Your task to perform on an android device: Search for vegetarian restaurants on Maps Image 0: 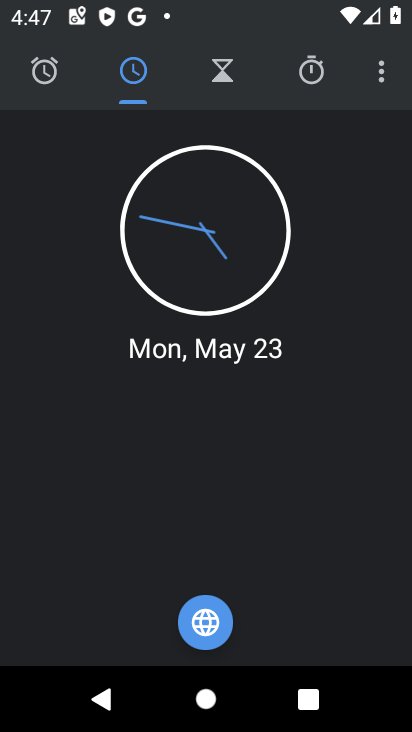
Step 0: press home button
Your task to perform on an android device: Search for vegetarian restaurants on Maps Image 1: 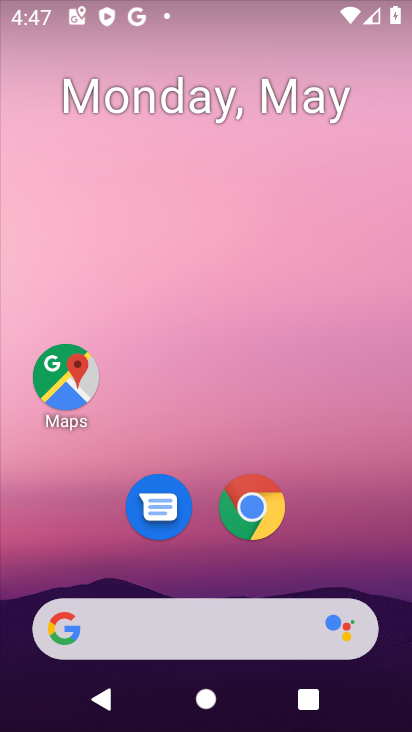
Step 1: drag from (350, 442) to (334, 31)
Your task to perform on an android device: Search for vegetarian restaurants on Maps Image 2: 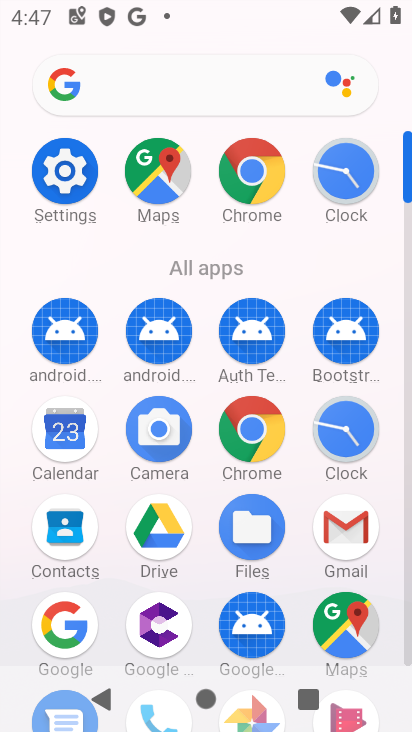
Step 2: click (167, 181)
Your task to perform on an android device: Search for vegetarian restaurants on Maps Image 3: 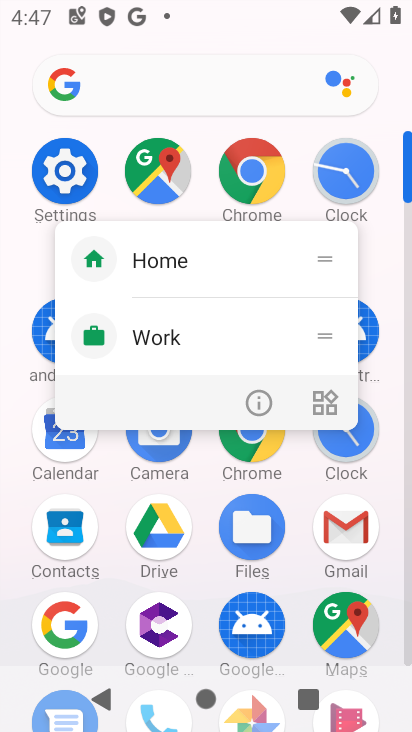
Step 3: click (167, 180)
Your task to perform on an android device: Search for vegetarian restaurants on Maps Image 4: 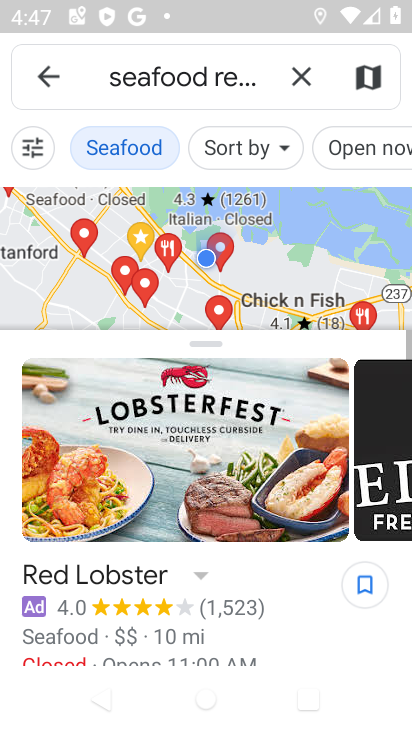
Step 4: click (299, 63)
Your task to perform on an android device: Search for vegetarian restaurants on Maps Image 5: 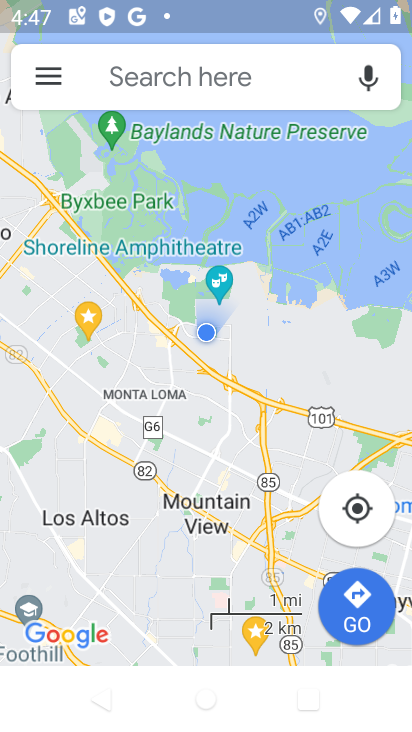
Step 5: click (222, 74)
Your task to perform on an android device: Search for vegetarian restaurants on Maps Image 6: 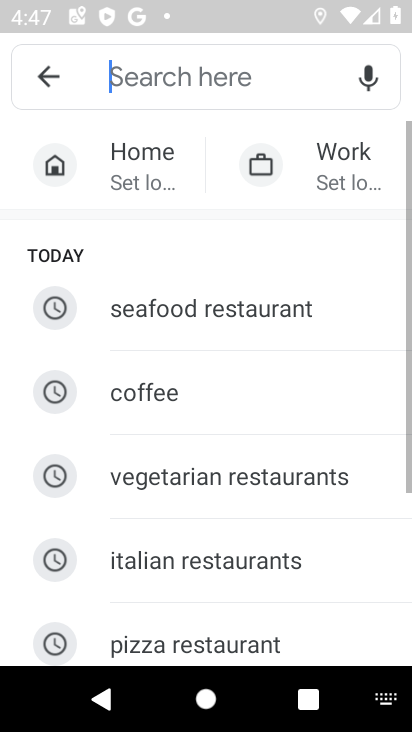
Step 6: click (247, 473)
Your task to perform on an android device: Search for vegetarian restaurants on Maps Image 7: 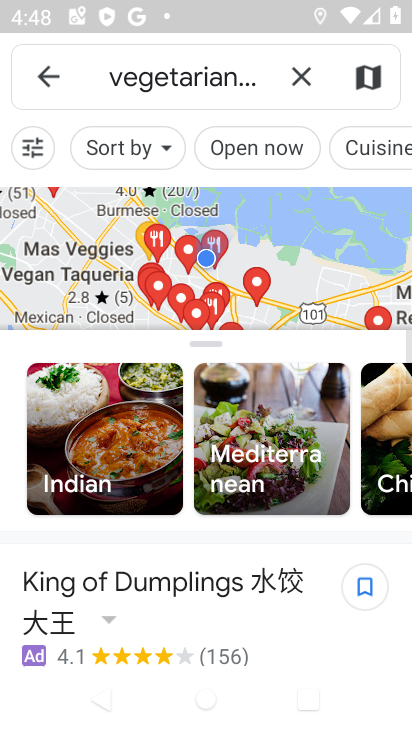
Step 7: task complete